Your task to perform on an android device: turn on sleep mode Image 0: 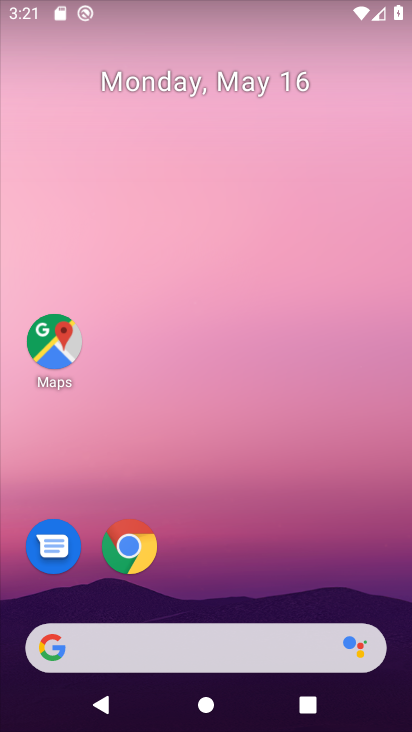
Step 0: drag from (378, 585) to (370, 140)
Your task to perform on an android device: turn on sleep mode Image 1: 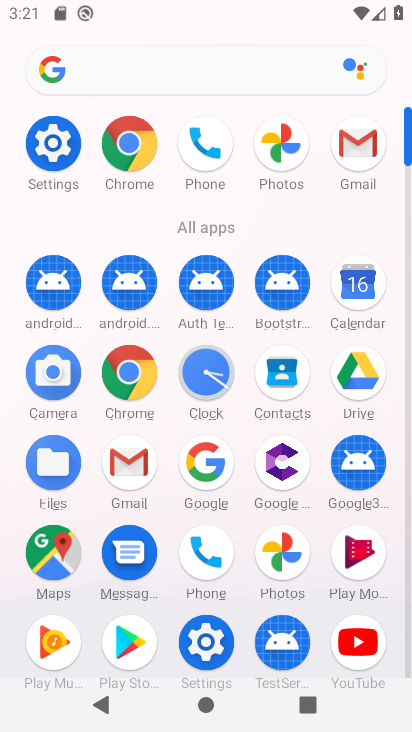
Step 1: click (70, 153)
Your task to perform on an android device: turn on sleep mode Image 2: 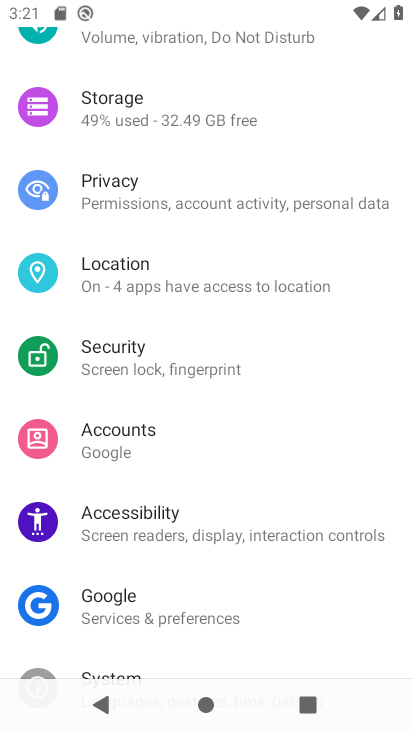
Step 2: drag from (283, 624) to (302, 427)
Your task to perform on an android device: turn on sleep mode Image 3: 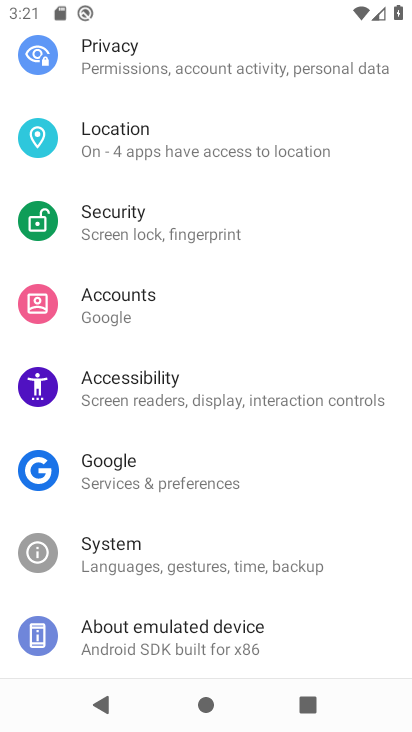
Step 3: drag from (328, 429) to (322, 510)
Your task to perform on an android device: turn on sleep mode Image 4: 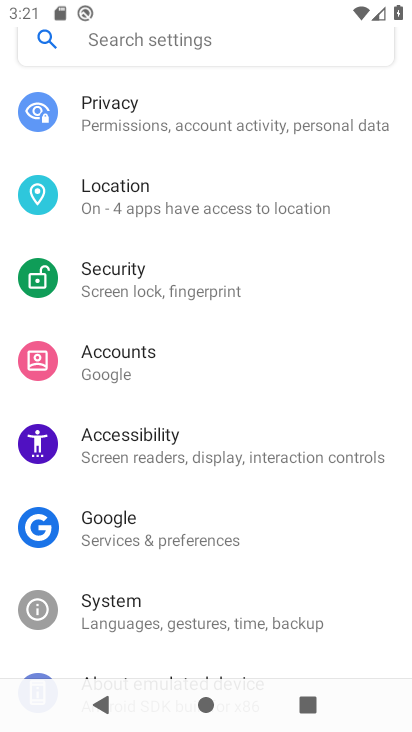
Step 4: drag from (316, 336) to (316, 471)
Your task to perform on an android device: turn on sleep mode Image 5: 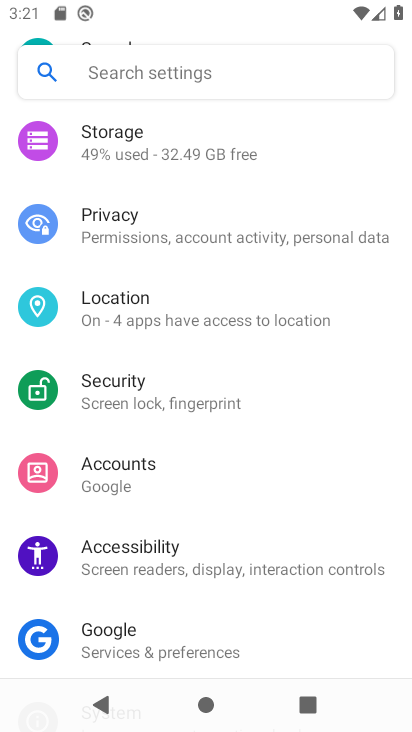
Step 5: drag from (349, 289) to (348, 431)
Your task to perform on an android device: turn on sleep mode Image 6: 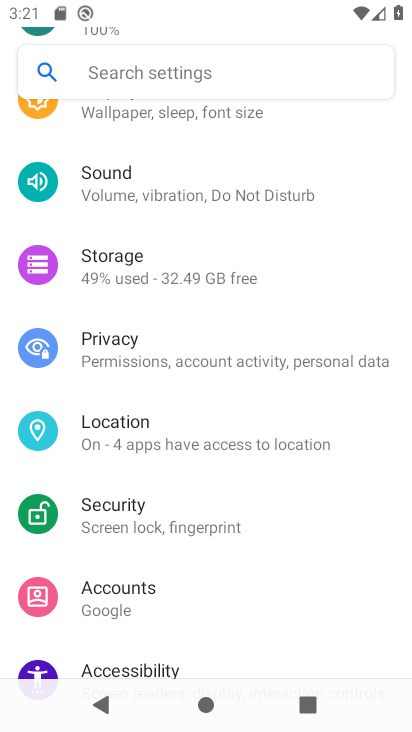
Step 6: drag from (366, 247) to (343, 425)
Your task to perform on an android device: turn on sleep mode Image 7: 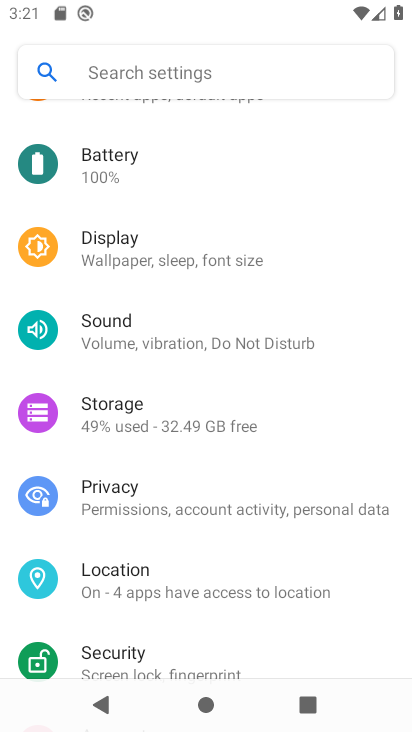
Step 7: drag from (337, 232) to (342, 421)
Your task to perform on an android device: turn on sleep mode Image 8: 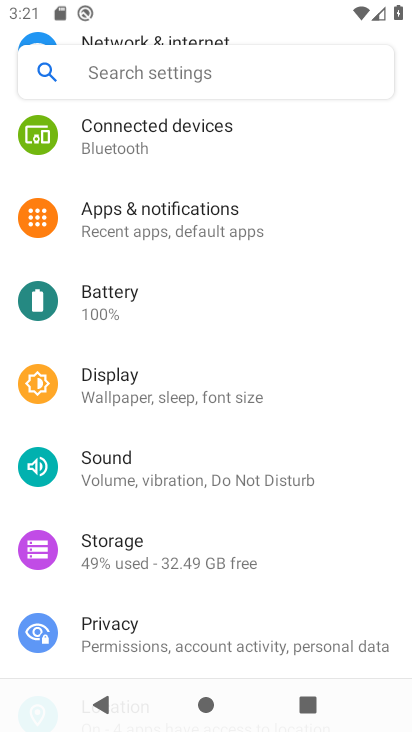
Step 8: drag from (340, 225) to (343, 368)
Your task to perform on an android device: turn on sleep mode Image 9: 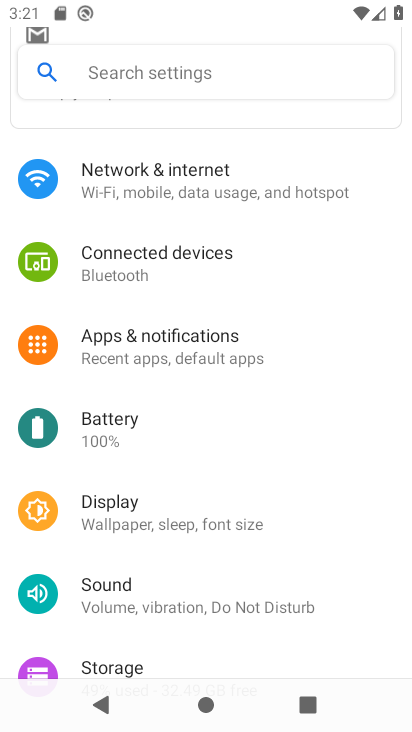
Step 9: drag from (371, 194) to (351, 272)
Your task to perform on an android device: turn on sleep mode Image 10: 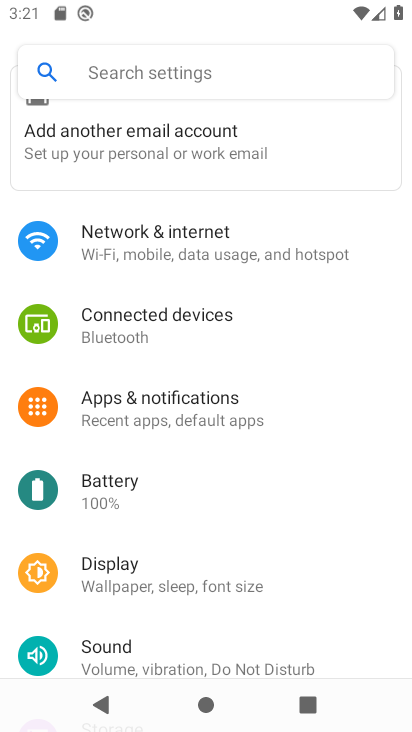
Step 10: click (246, 606)
Your task to perform on an android device: turn on sleep mode Image 11: 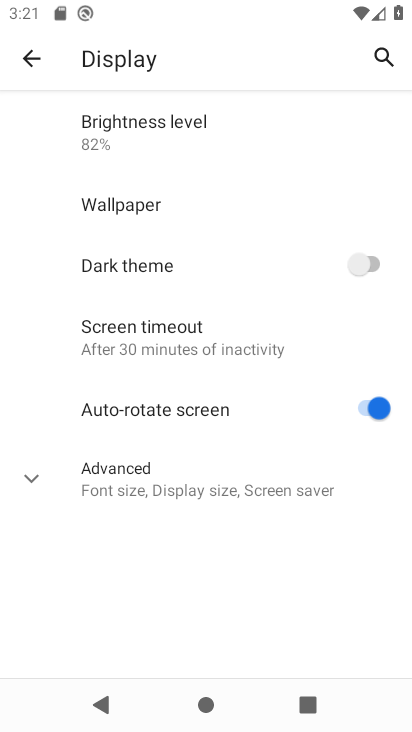
Step 11: click (225, 499)
Your task to perform on an android device: turn on sleep mode Image 12: 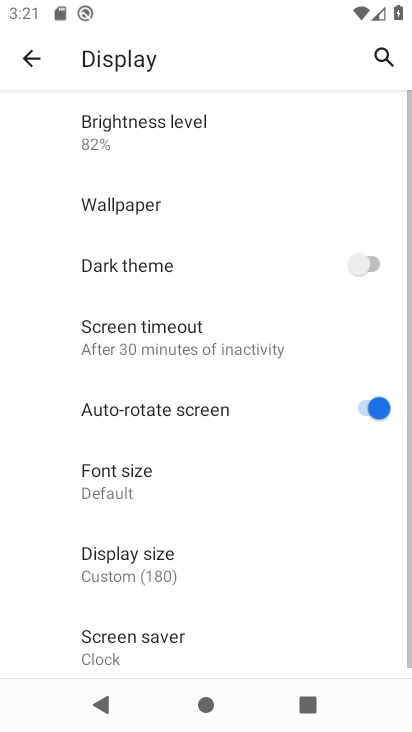
Step 12: task complete